Your task to perform on an android device: check the backup settings in the google photos Image 0: 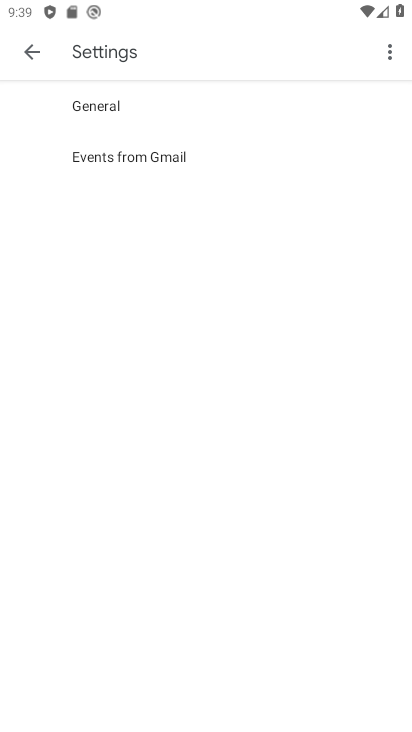
Step 0: press home button
Your task to perform on an android device: check the backup settings in the google photos Image 1: 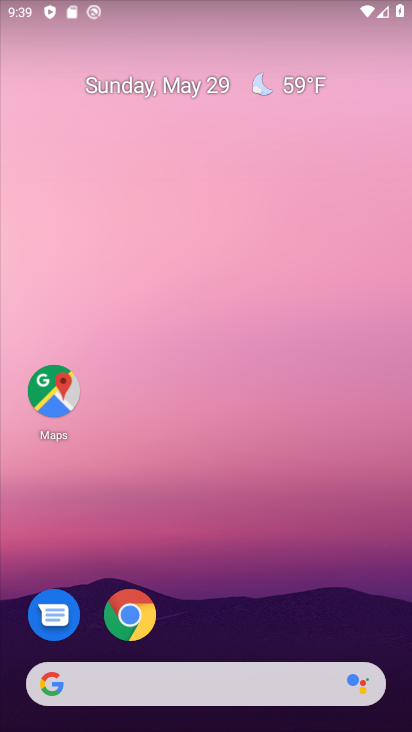
Step 1: drag from (238, 599) to (298, 76)
Your task to perform on an android device: check the backup settings in the google photos Image 2: 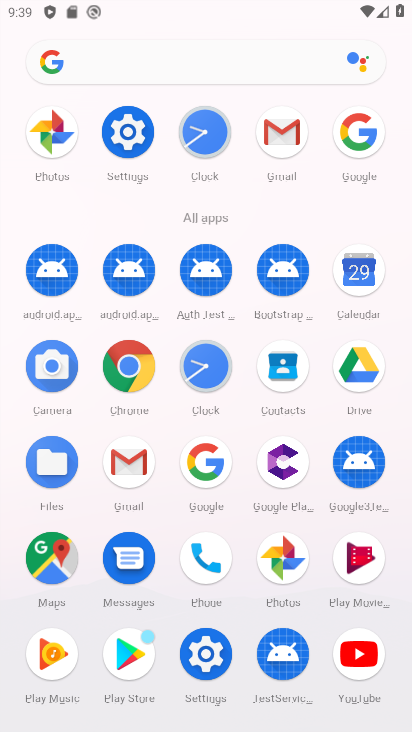
Step 2: click (50, 136)
Your task to perform on an android device: check the backup settings in the google photos Image 3: 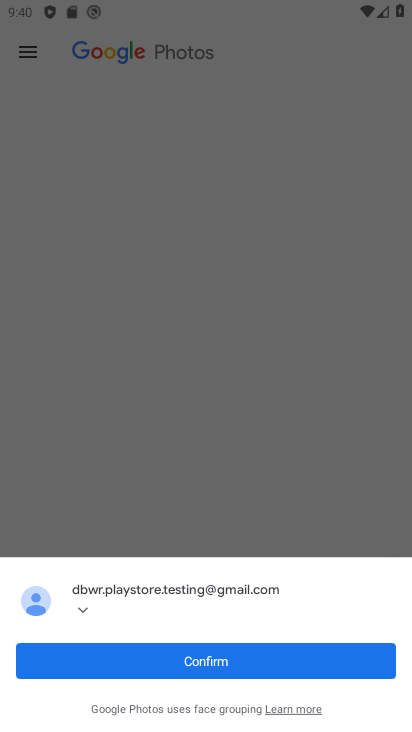
Step 3: click (25, 48)
Your task to perform on an android device: check the backup settings in the google photos Image 4: 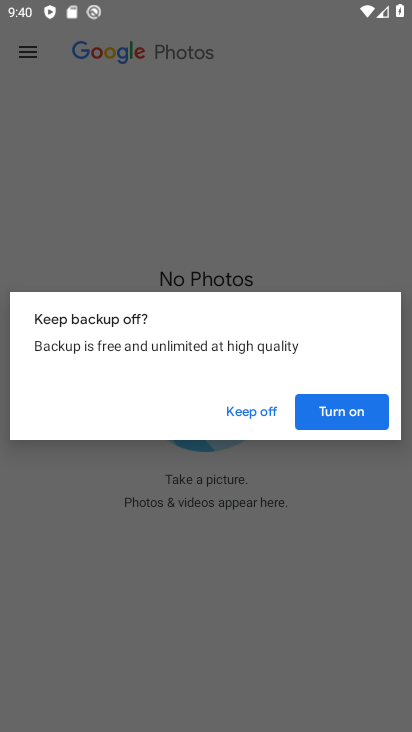
Step 4: click (341, 415)
Your task to perform on an android device: check the backup settings in the google photos Image 5: 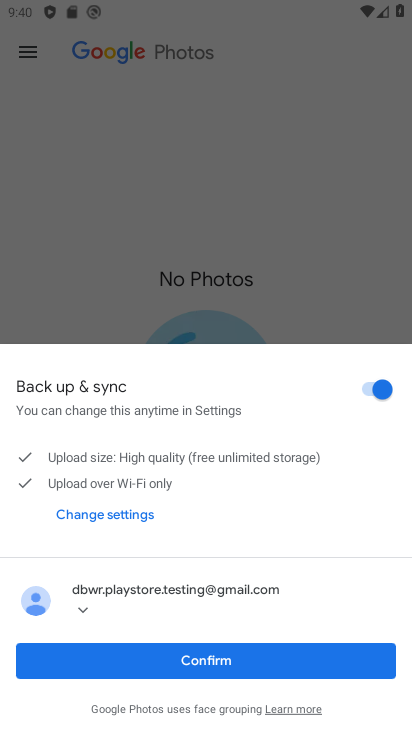
Step 5: click (173, 665)
Your task to perform on an android device: check the backup settings in the google photos Image 6: 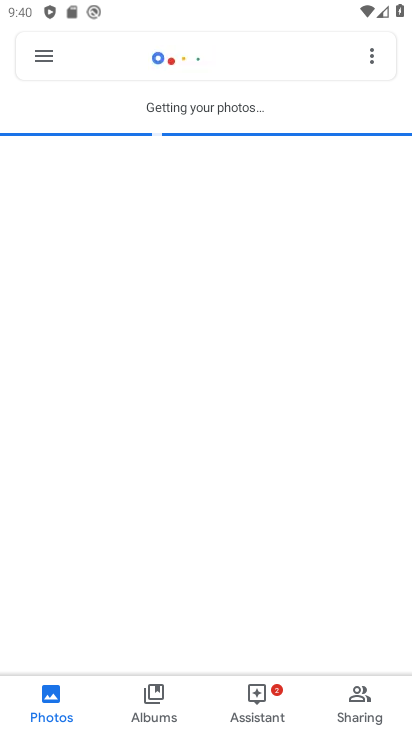
Step 6: click (41, 54)
Your task to perform on an android device: check the backup settings in the google photos Image 7: 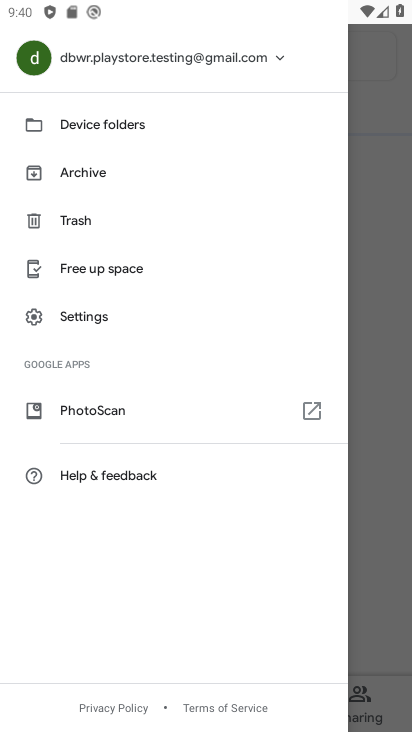
Step 7: click (90, 323)
Your task to perform on an android device: check the backup settings in the google photos Image 8: 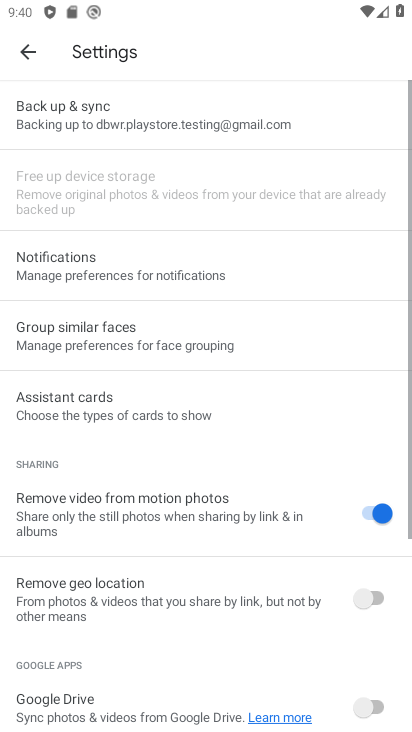
Step 8: click (132, 113)
Your task to perform on an android device: check the backup settings in the google photos Image 9: 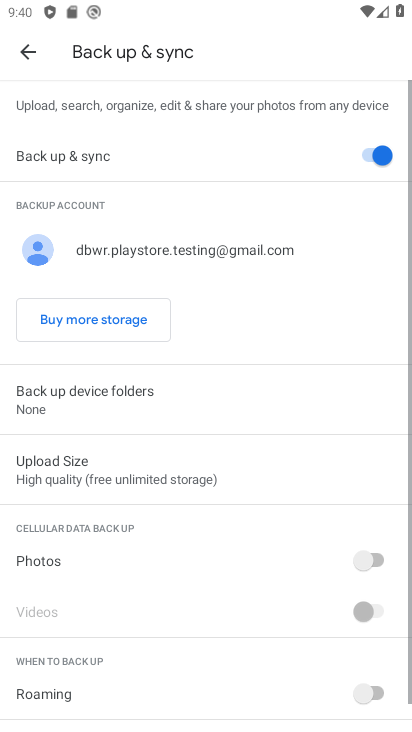
Step 9: click (87, 491)
Your task to perform on an android device: check the backup settings in the google photos Image 10: 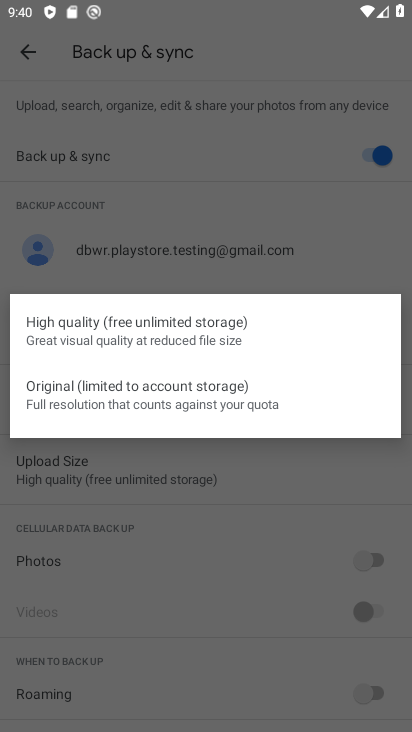
Step 10: click (71, 412)
Your task to perform on an android device: check the backup settings in the google photos Image 11: 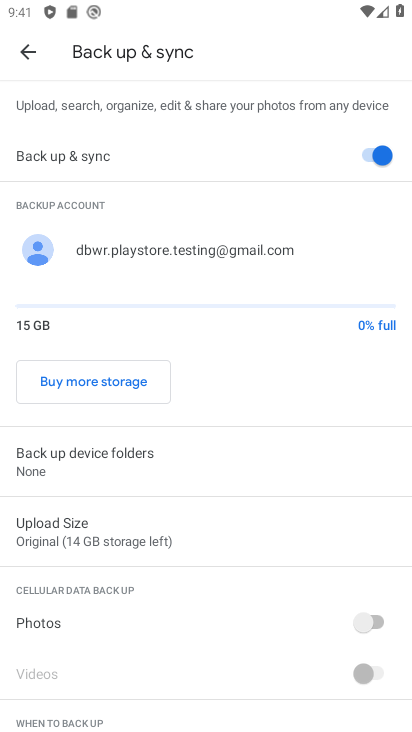
Step 11: task complete